Your task to perform on an android device: change timer sound Image 0: 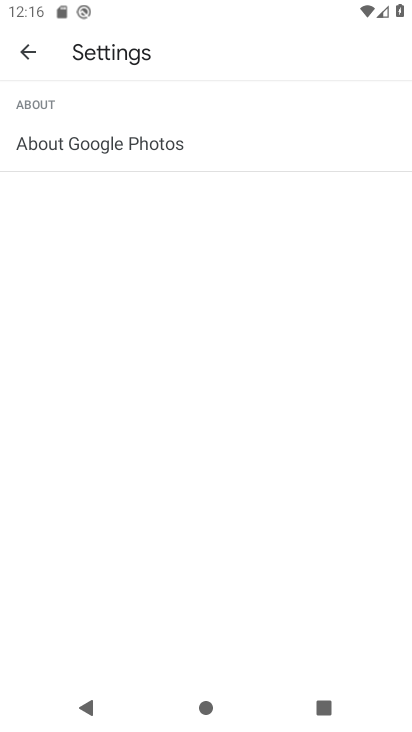
Step 0: press home button
Your task to perform on an android device: change timer sound Image 1: 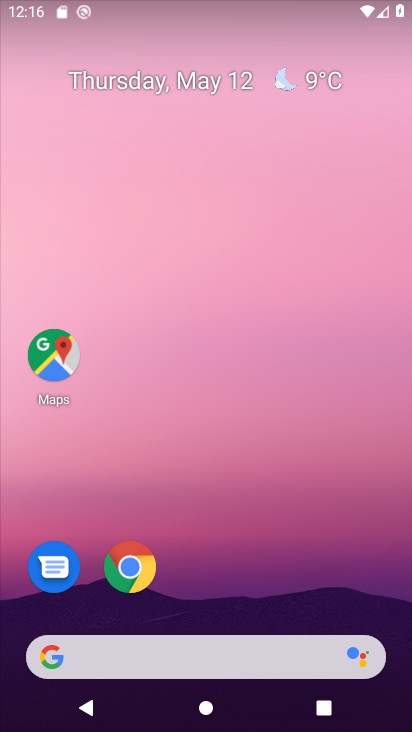
Step 1: drag from (240, 550) to (262, 112)
Your task to perform on an android device: change timer sound Image 2: 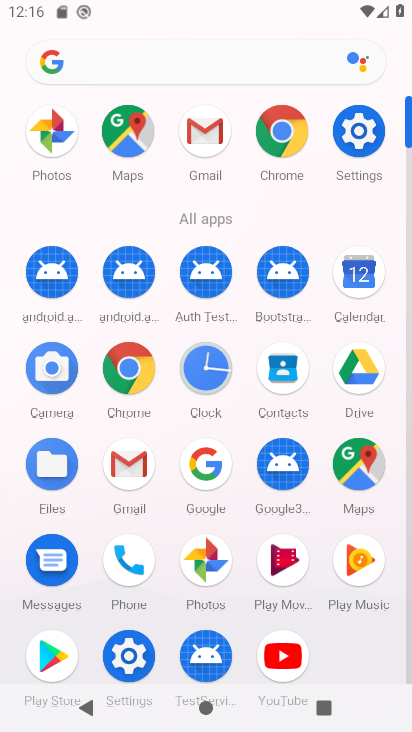
Step 2: click (210, 383)
Your task to perform on an android device: change timer sound Image 3: 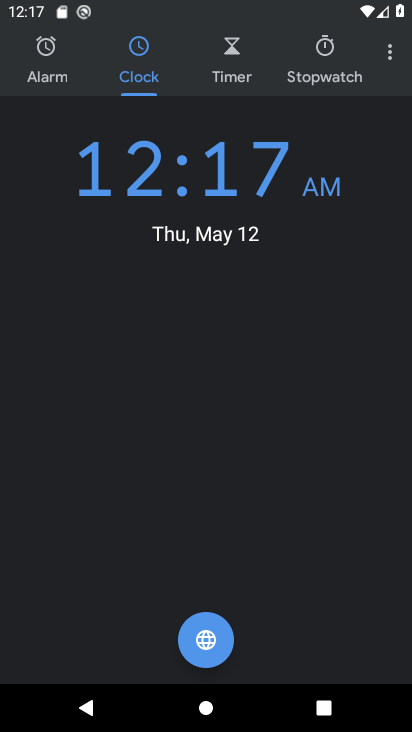
Step 3: drag from (387, 57) to (334, 113)
Your task to perform on an android device: change timer sound Image 4: 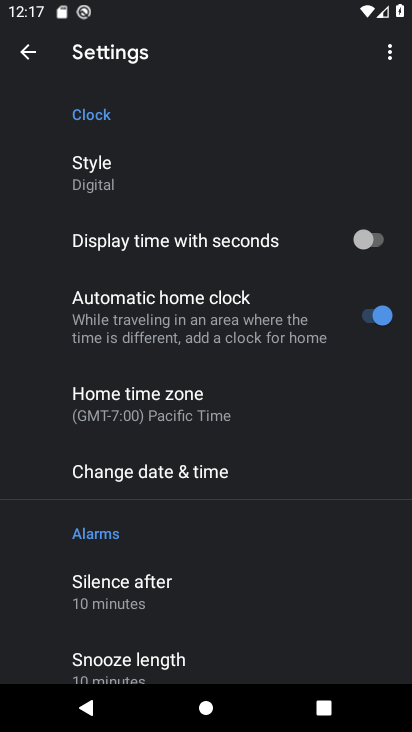
Step 4: drag from (256, 607) to (270, 189)
Your task to perform on an android device: change timer sound Image 5: 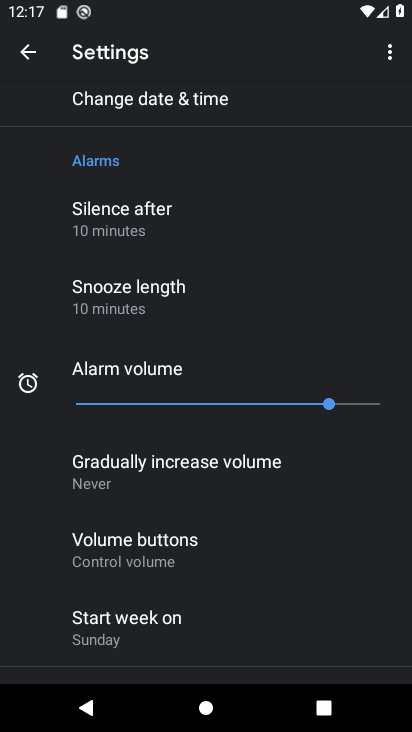
Step 5: drag from (239, 578) to (257, 182)
Your task to perform on an android device: change timer sound Image 6: 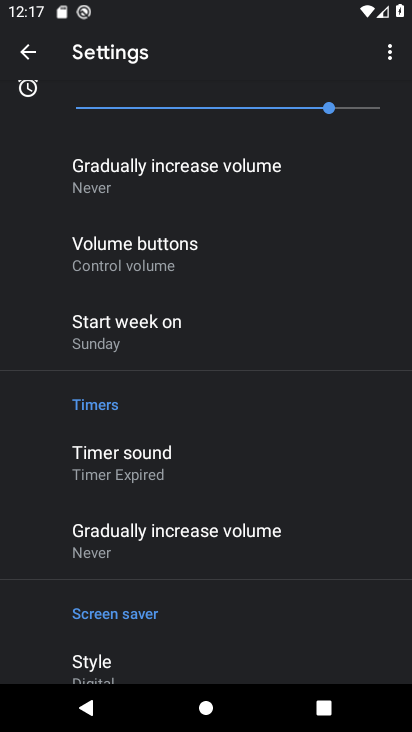
Step 6: click (175, 483)
Your task to perform on an android device: change timer sound Image 7: 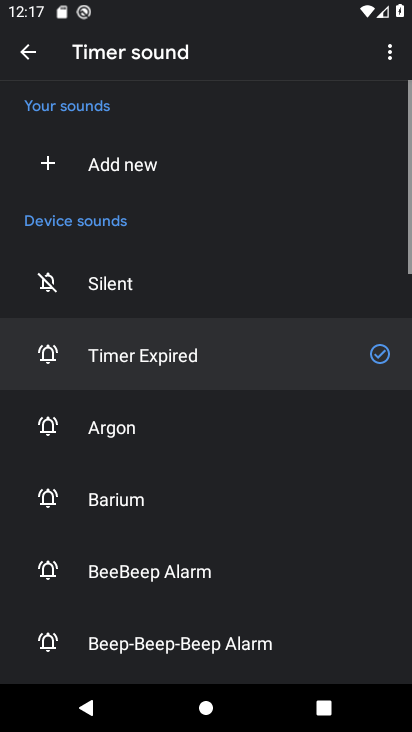
Step 7: click (197, 441)
Your task to perform on an android device: change timer sound Image 8: 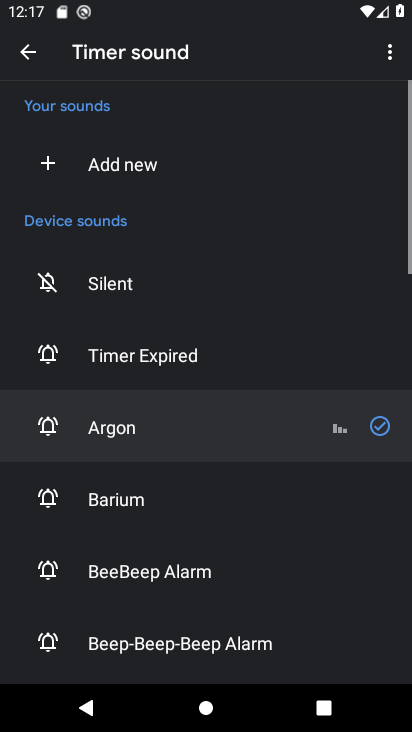
Step 8: task complete